Your task to perform on an android device: move a message to another label in the gmail app Image 0: 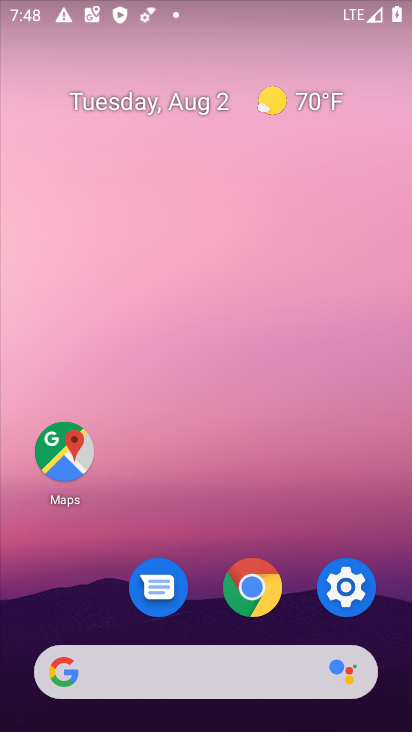
Step 0: drag from (280, 704) to (258, 328)
Your task to perform on an android device: move a message to another label in the gmail app Image 1: 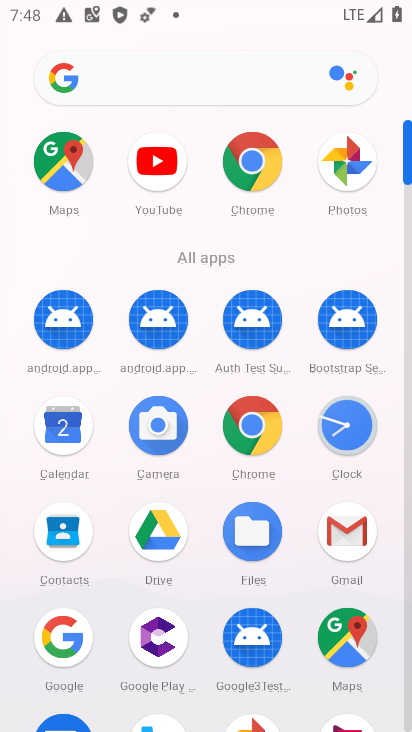
Step 1: drag from (341, 529) to (384, 624)
Your task to perform on an android device: move a message to another label in the gmail app Image 2: 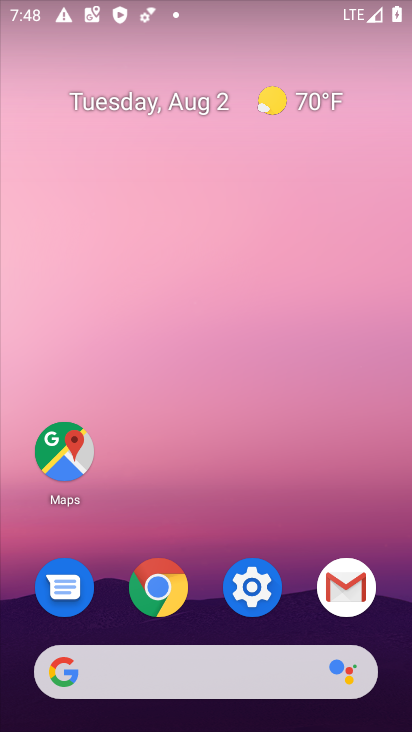
Step 2: click (348, 583)
Your task to perform on an android device: move a message to another label in the gmail app Image 3: 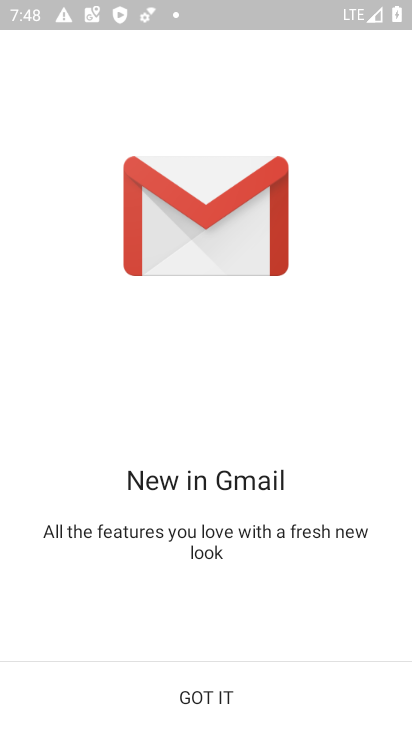
Step 3: click (205, 697)
Your task to perform on an android device: move a message to another label in the gmail app Image 4: 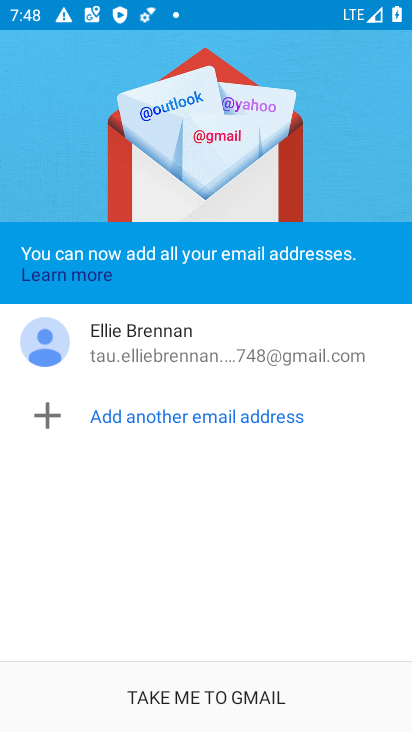
Step 4: click (204, 698)
Your task to perform on an android device: move a message to another label in the gmail app Image 5: 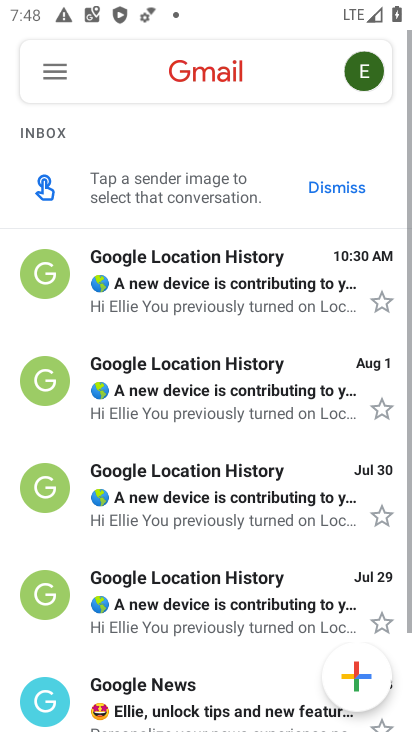
Step 5: click (50, 79)
Your task to perform on an android device: move a message to another label in the gmail app Image 6: 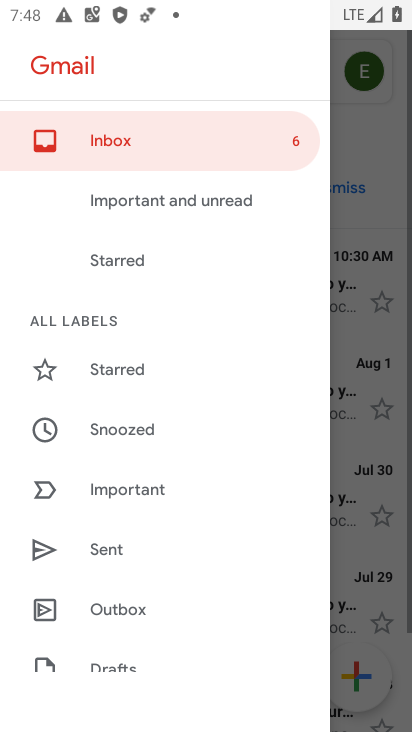
Step 6: drag from (155, 546) to (191, 262)
Your task to perform on an android device: move a message to another label in the gmail app Image 7: 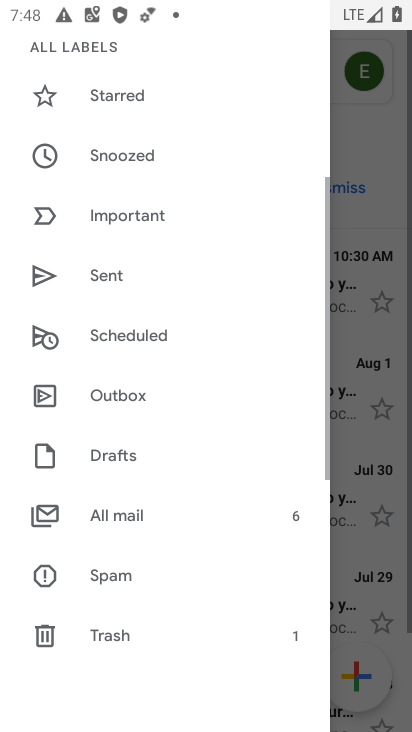
Step 7: drag from (140, 550) to (130, 224)
Your task to perform on an android device: move a message to another label in the gmail app Image 8: 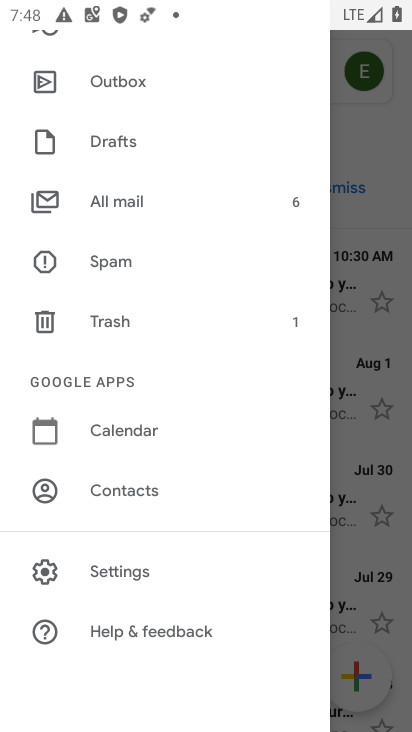
Step 8: click (125, 569)
Your task to perform on an android device: move a message to another label in the gmail app Image 9: 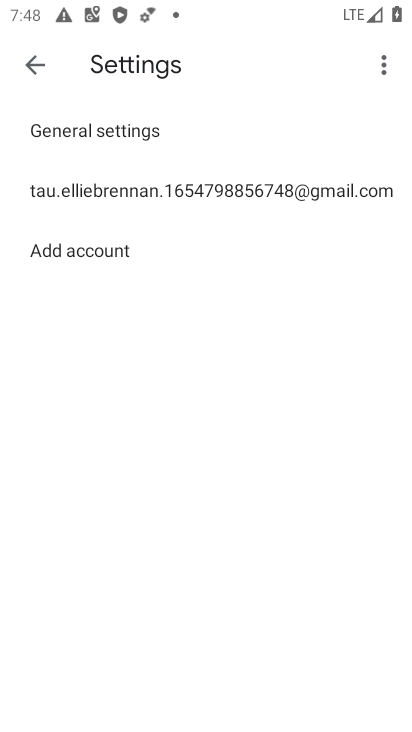
Step 9: click (93, 193)
Your task to perform on an android device: move a message to another label in the gmail app Image 10: 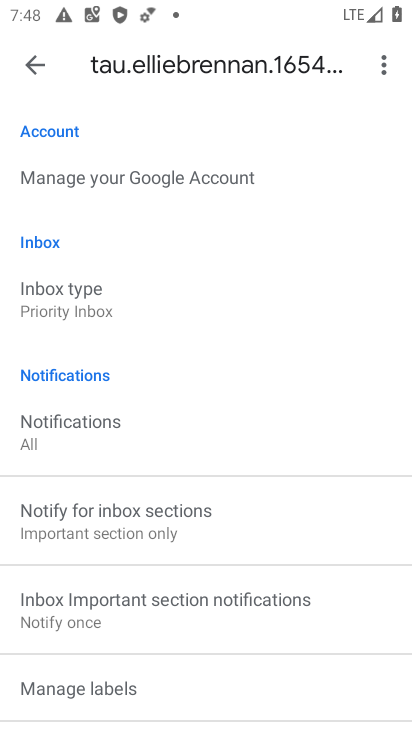
Step 10: click (89, 674)
Your task to perform on an android device: move a message to another label in the gmail app Image 11: 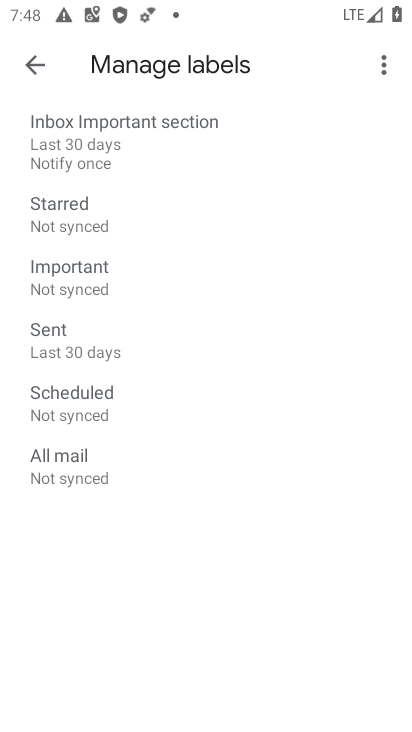
Step 11: click (79, 209)
Your task to perform on an android device: move a message to another label in the gmail app Image 12: 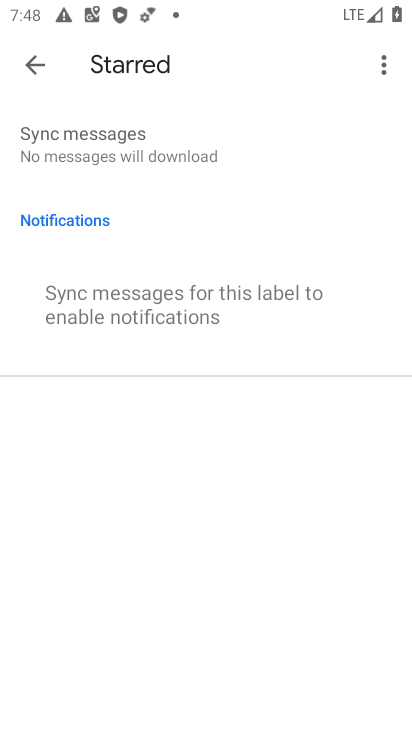
Step 12: task complete